Your task to perform on an android device: Go to calendar. Show me events next week Image 0: 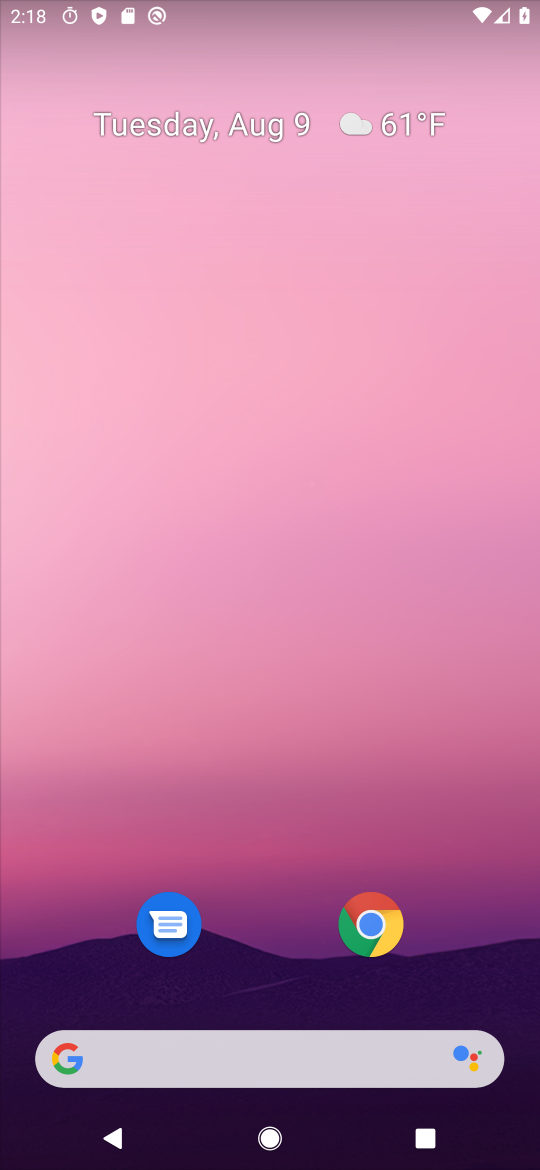
Step 0: drag from (433, 785) to (300, 260)
Your task to perform on an android device: Go to calendar. Show me events next week Image 1: 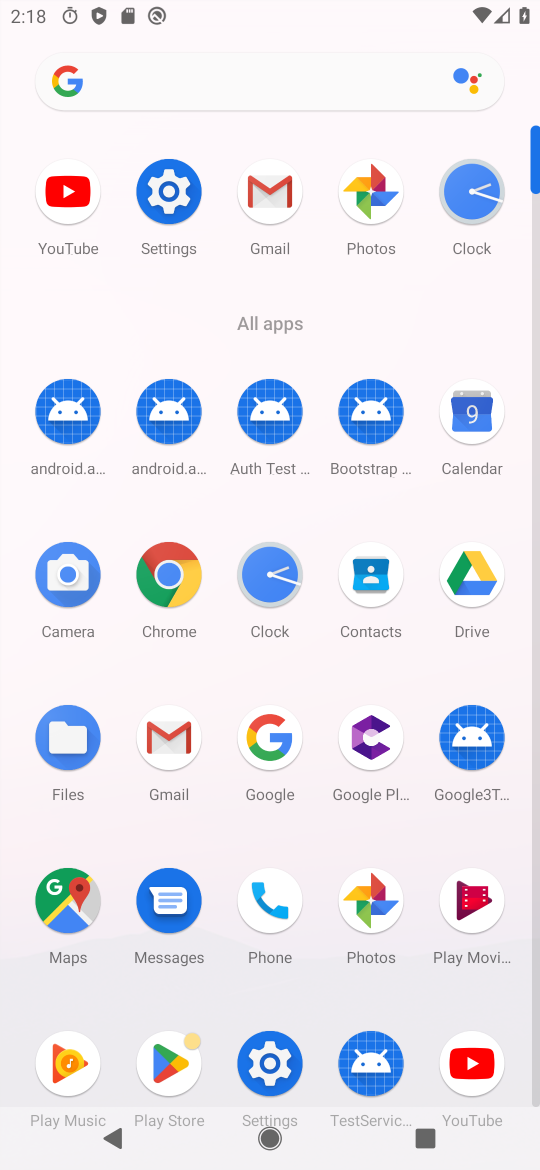
Step 1: click (465, 407)
Your task to perform on an android device: Go to calendar. Show me events next week Image 2: 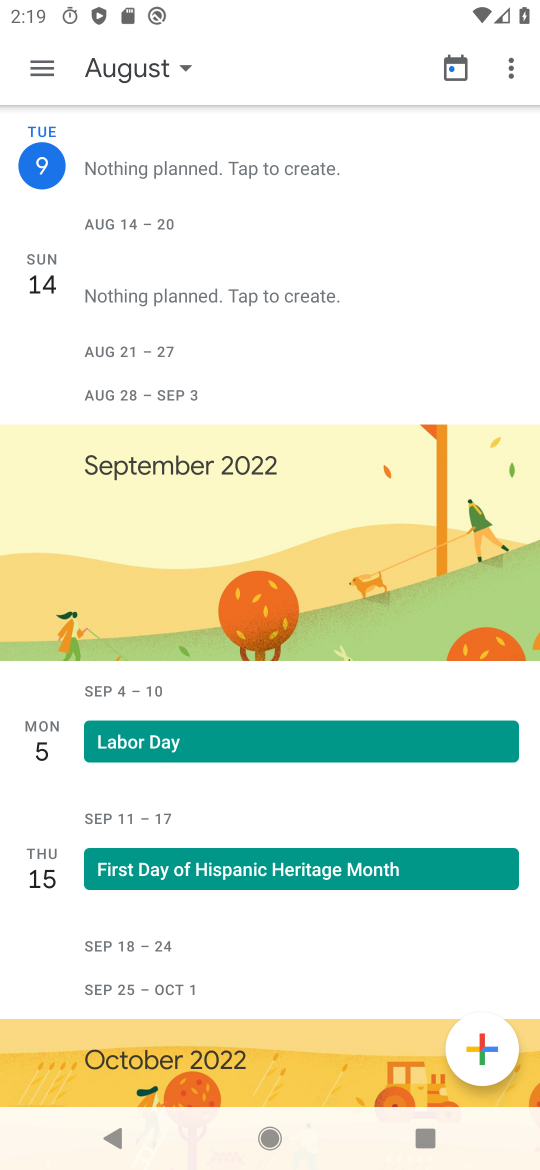
Step 2: click (37, 54)
Your task to perform on an android device: Go to calendar. Show me events next week Image 3: 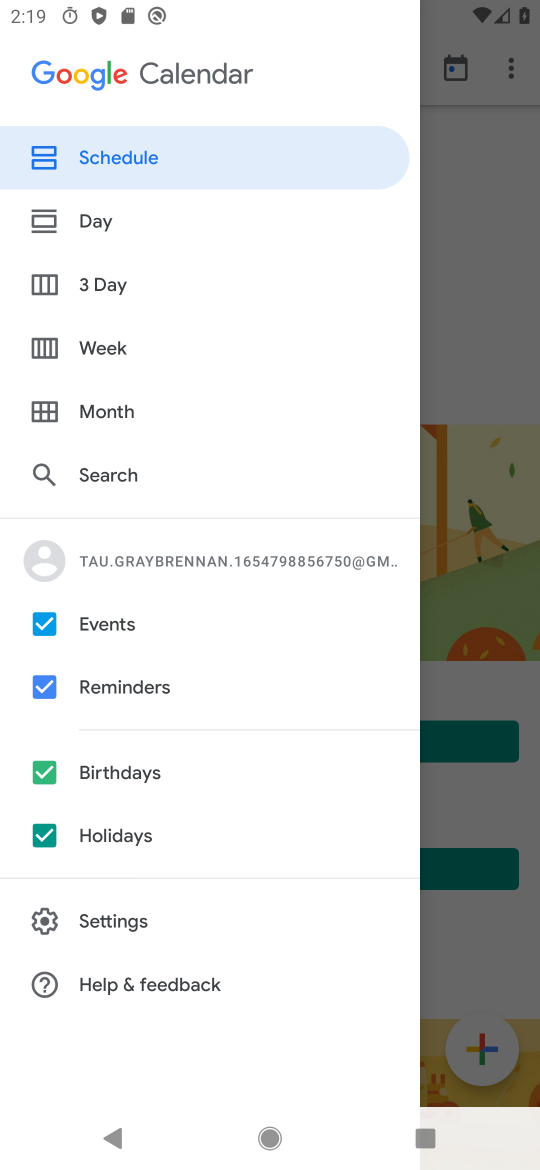
Step 3: click (101, 339)
Your task to perform on an android device: Go to calendar. Show me events next week Image 4: 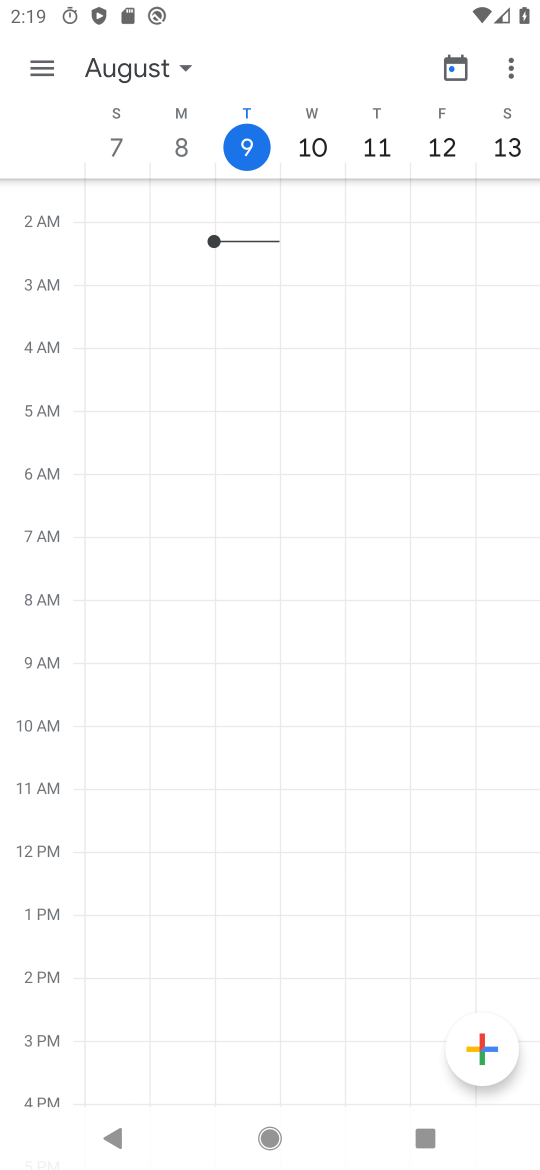
Step 4: click (166, 64)
Your task to perform on an android device: Go to calendar. Show me events next week Image 5: 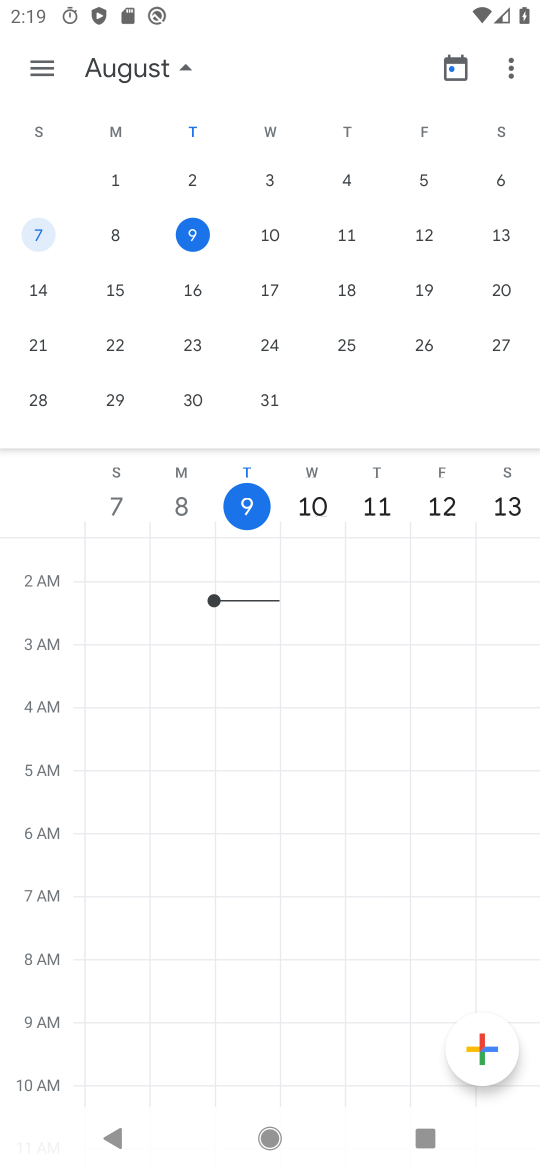
Step 5: click (195, 283)
Your task to perform on an android device: Go to calendar. Show me events next week Image 6: 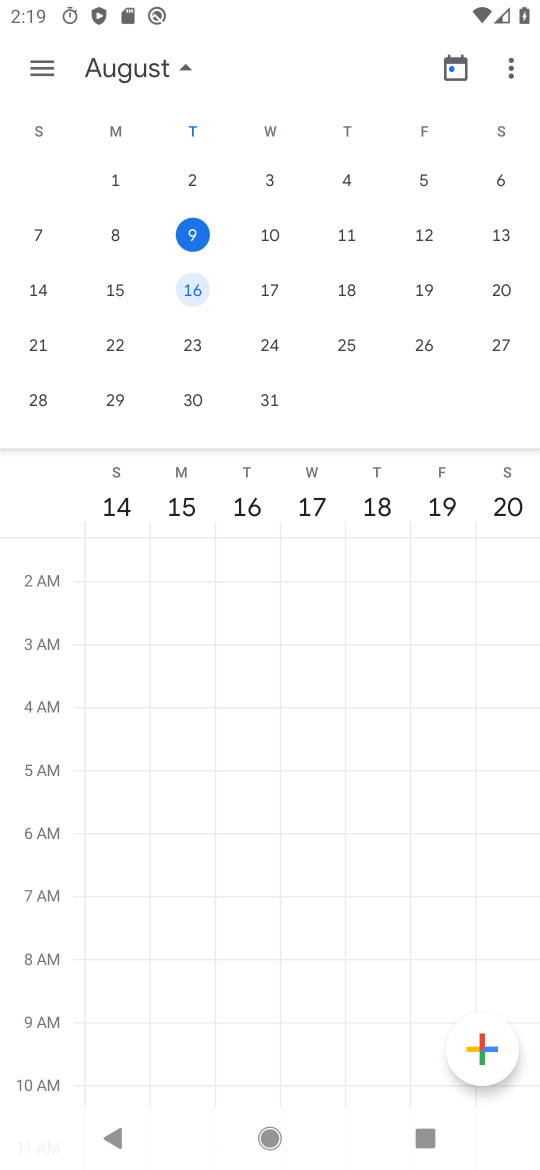
Step 6: click (45, 65)
Your task to perform on an android device: Go to calendar. Show me events next week Image 7: 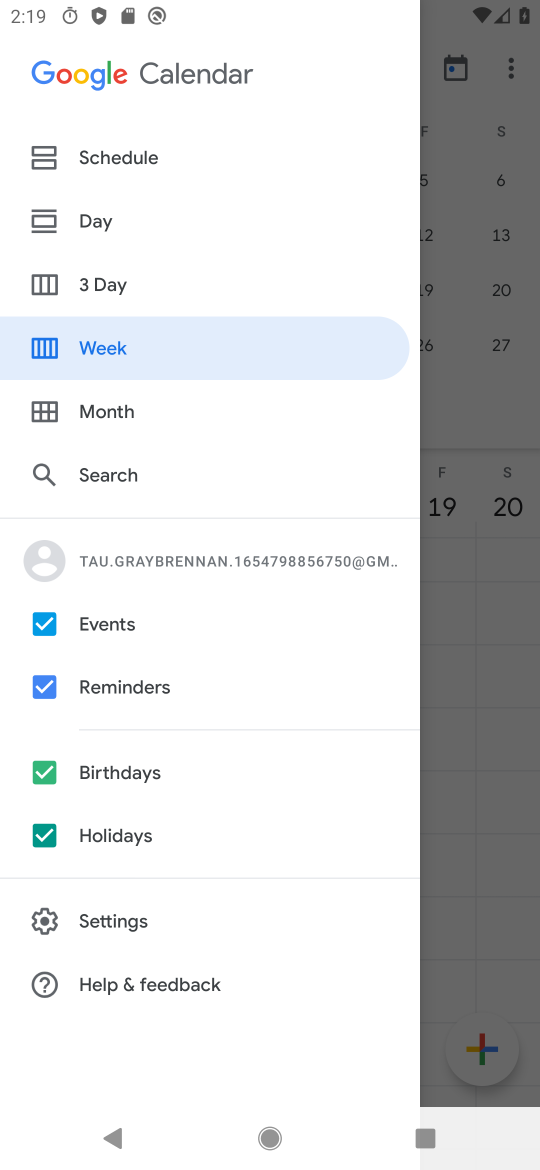
Step 7: click (109, 145)
Your task to perform on an android device: Go to calendar. Show me events next week Image 8: 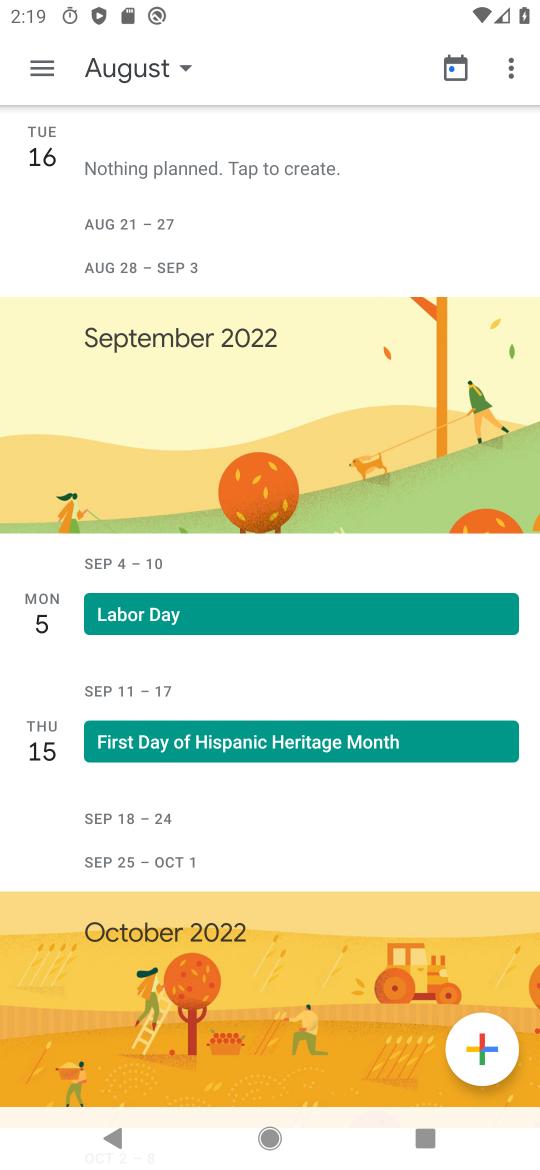
Step 8: task complete